Your task to perform on an android device: Open Youtube and go to the subscriptions tab Image 0: 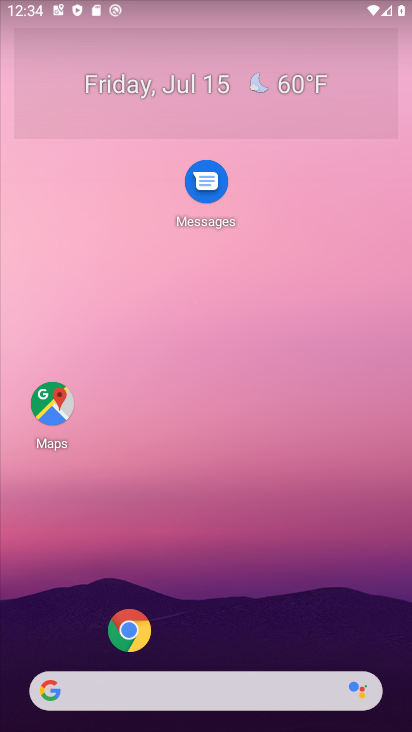
Step 0: drag from (26, 707) to (133, 329)
Your task to perform on an android device: Open Youtube and go to the subscriptions tab Image 1: 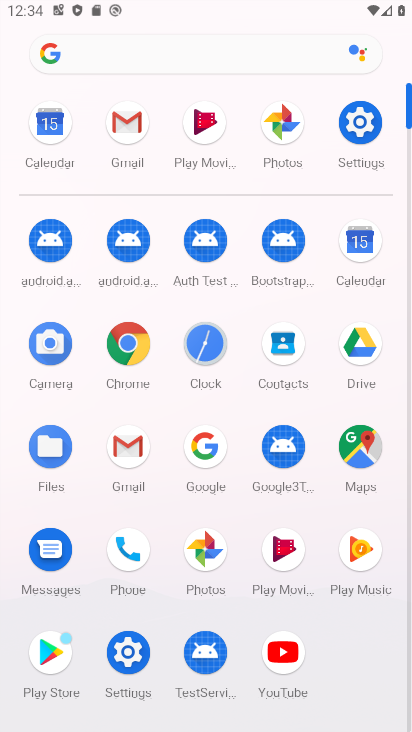
Step 1: click (290, 658)
Your task to perform on an android device: Open Youtube and go to the subscriptions tab Image 2: 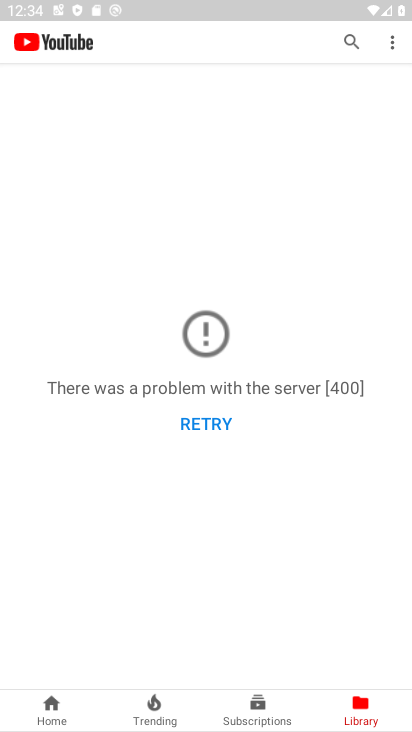
Step 2: click (230, 692)
Your task to perform on an android device: Open Youtube and go to the subscriptions tab Image 3: 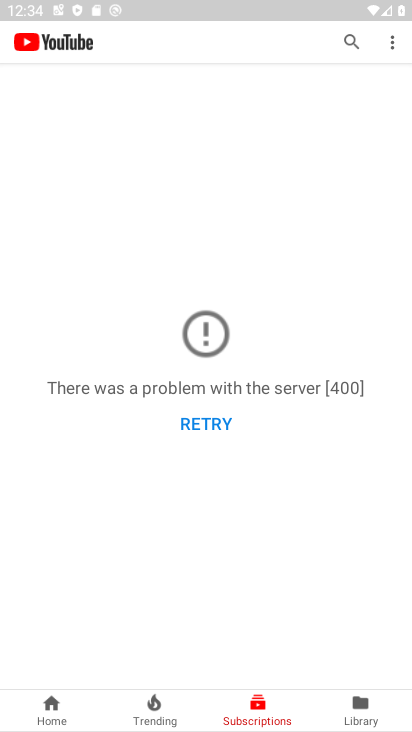
Step 3: task complete